Your task to perform on an android device: Empty the shopping cart on ebay.com. Image 0: 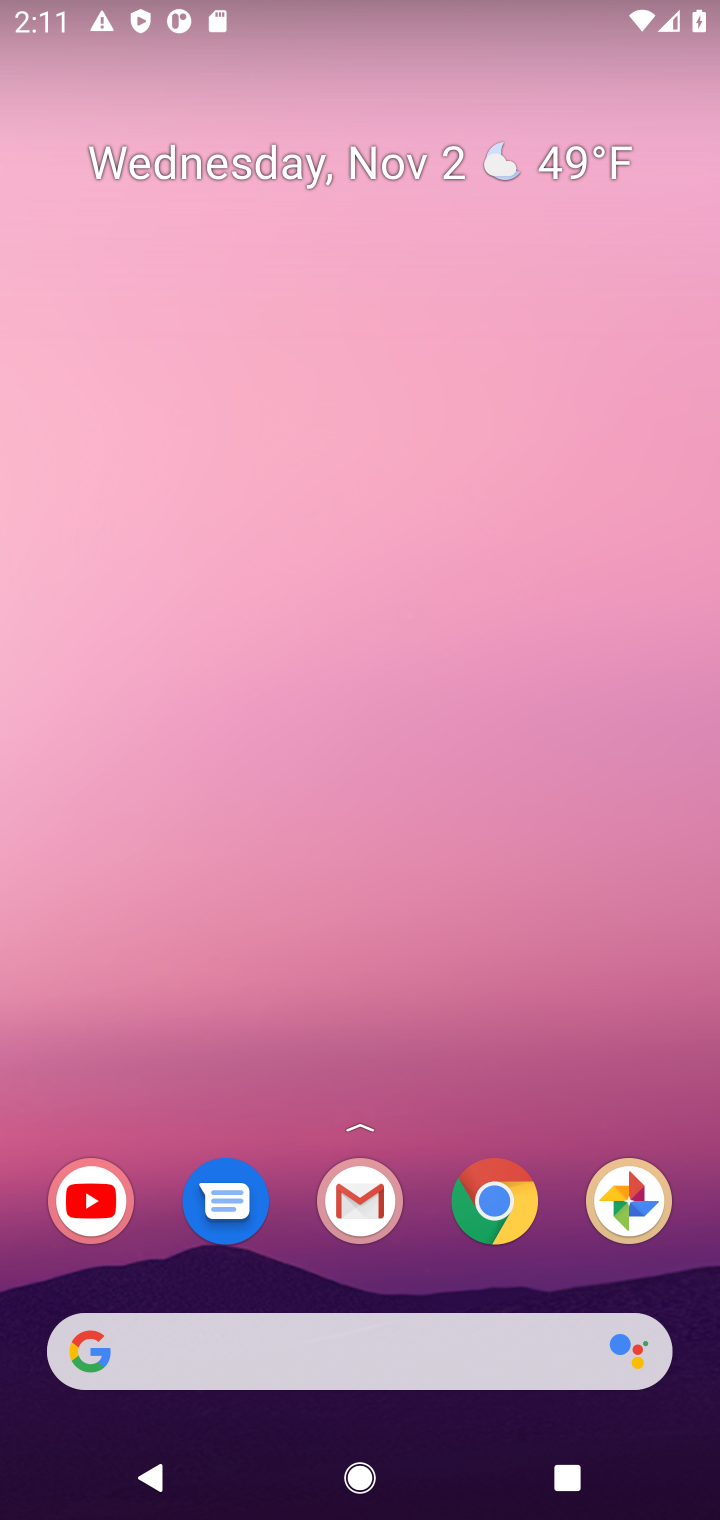
Step 0: click (479, 1205)
Your task to perform on an android device: Empty the shopping cart on ebay.com. Image 1: 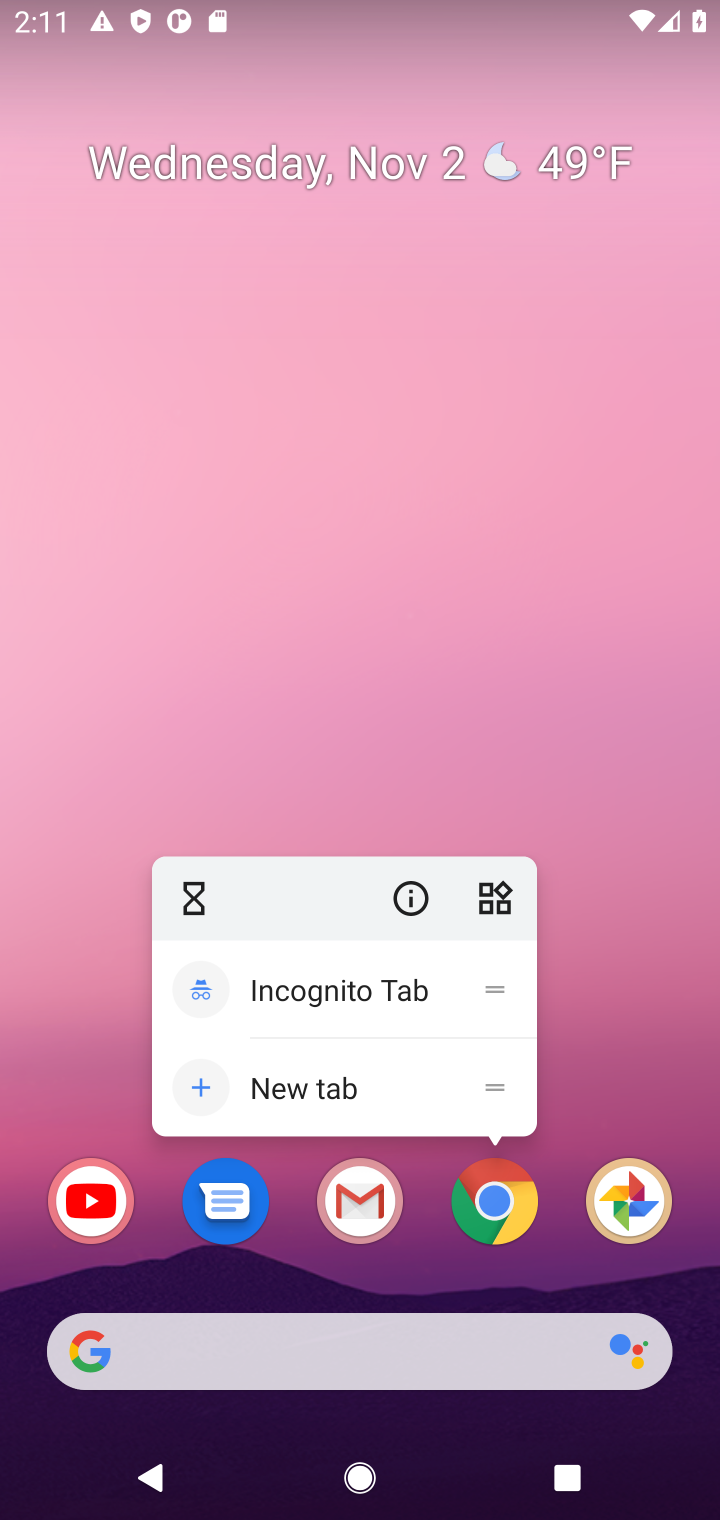
Step 1: click (495, 1188)
Your task to perform on an android device: Empty the shopping cart on ebay.com. Image 2: 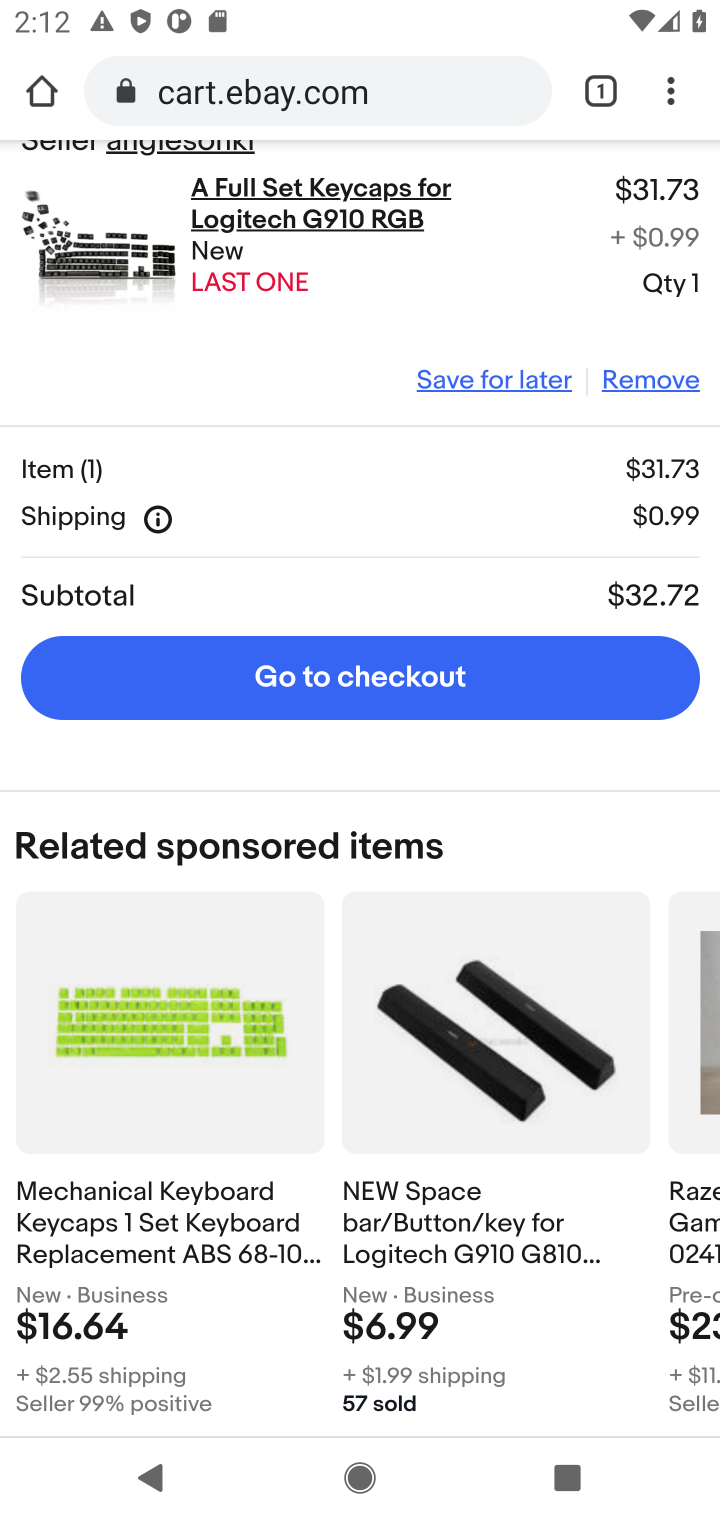
Step 2: drag from (486, 310) to (493, 1173)
Your task to perform on an android device: Empty the shopping cart on ebay.com. Image 3: 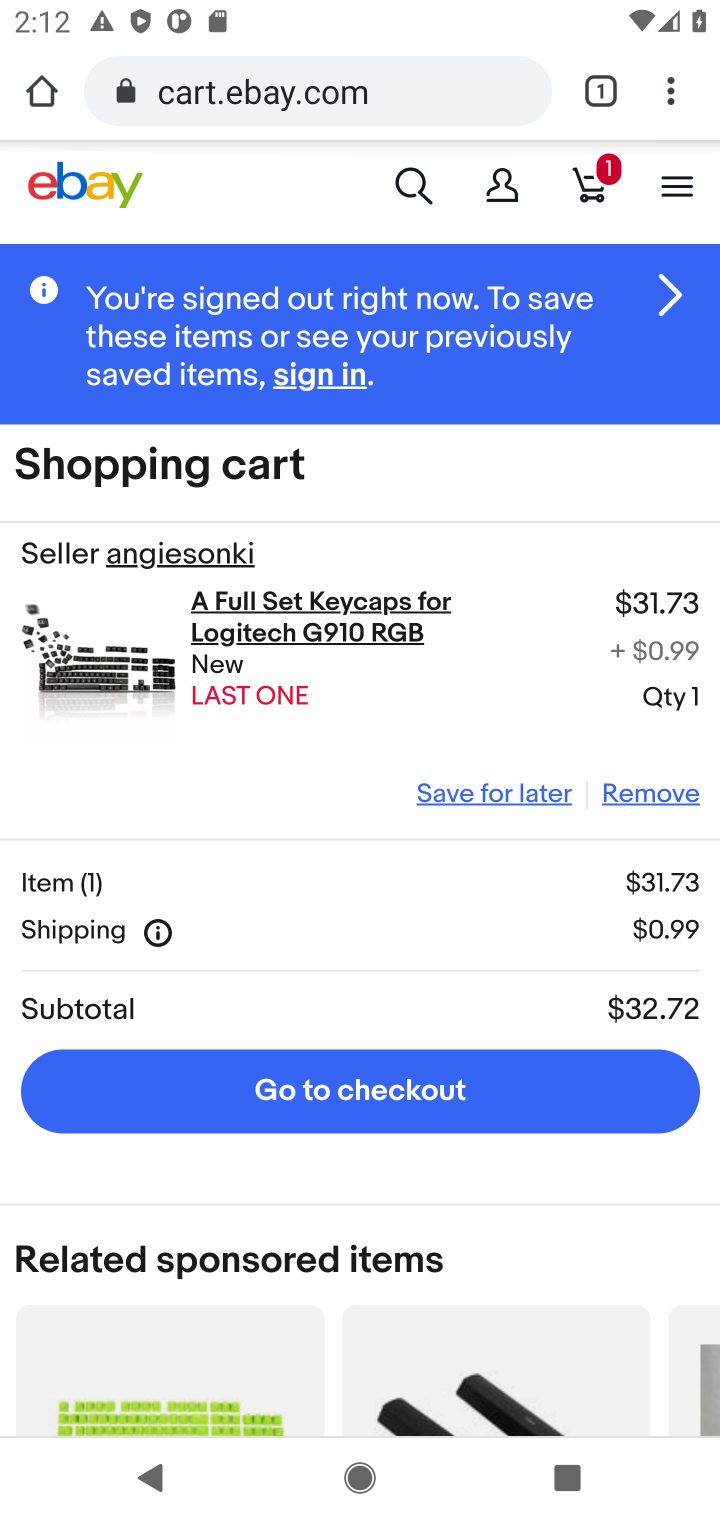
Step 3: click (589, 186)
Your task to perform on an android device: Empty the shopping cart on ebay.com. Image 4: 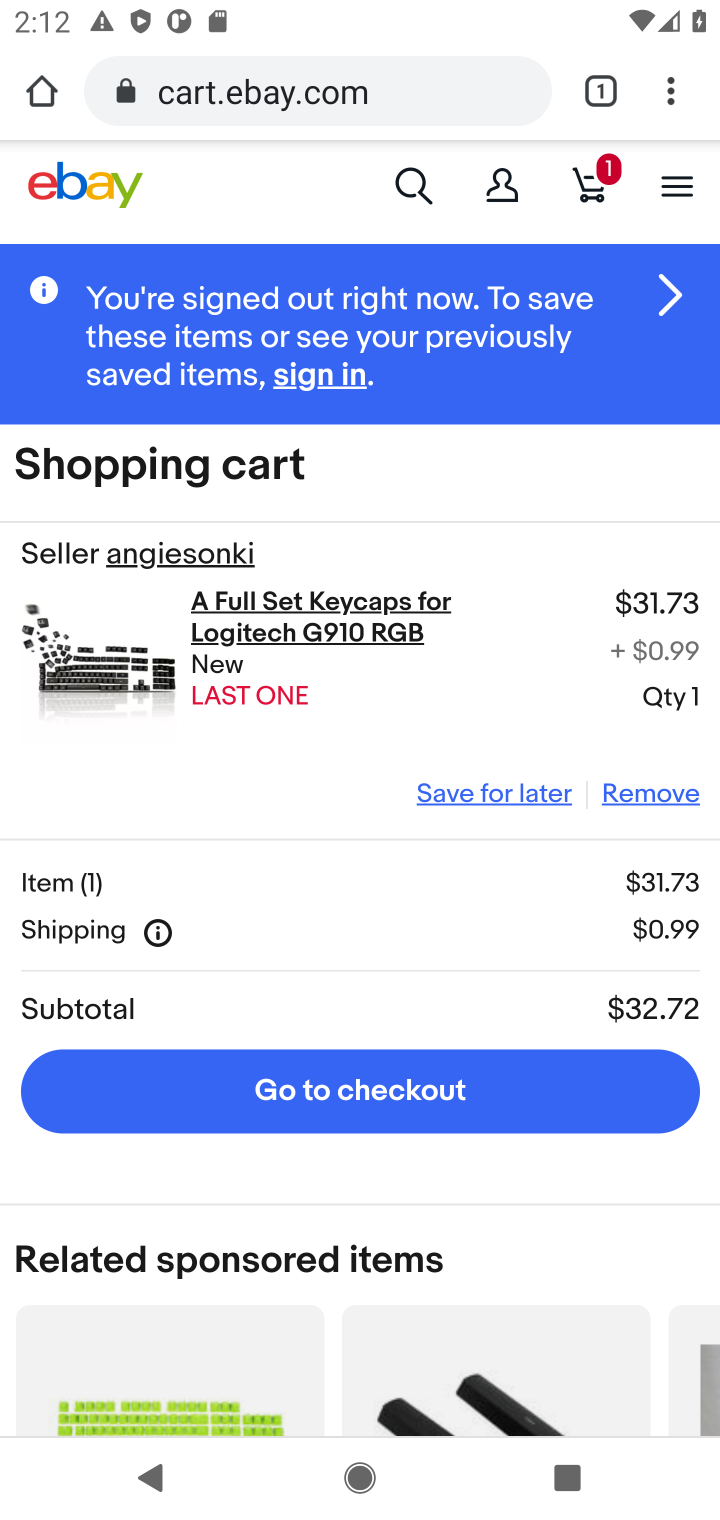
Step 4: click (654, 789)
Your task to perform on an android device: Empty the shopping cart on ebay.com. Image 5: 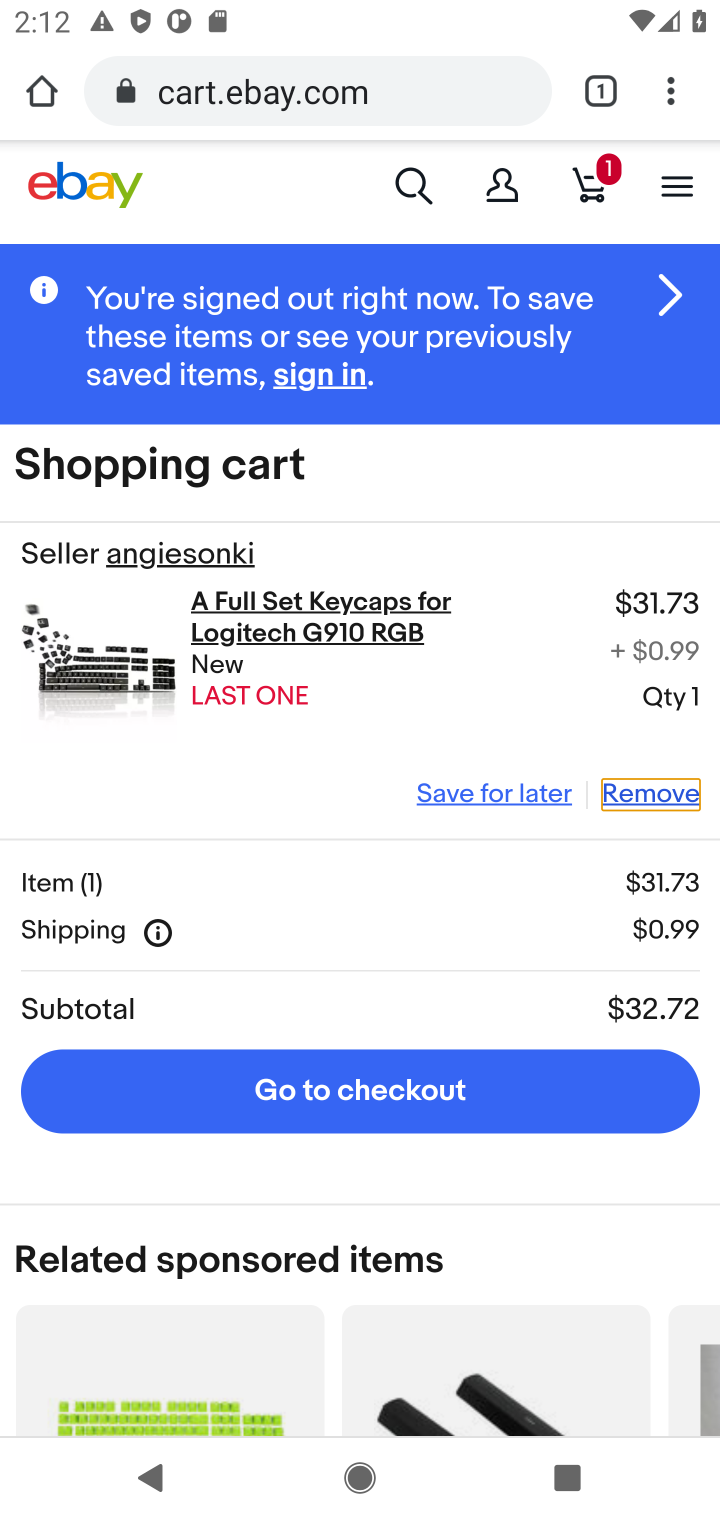
Step 5: click (642, 789)
Your task to perform on an android device: Empty the shopping cart on ebay.com. Image 6: 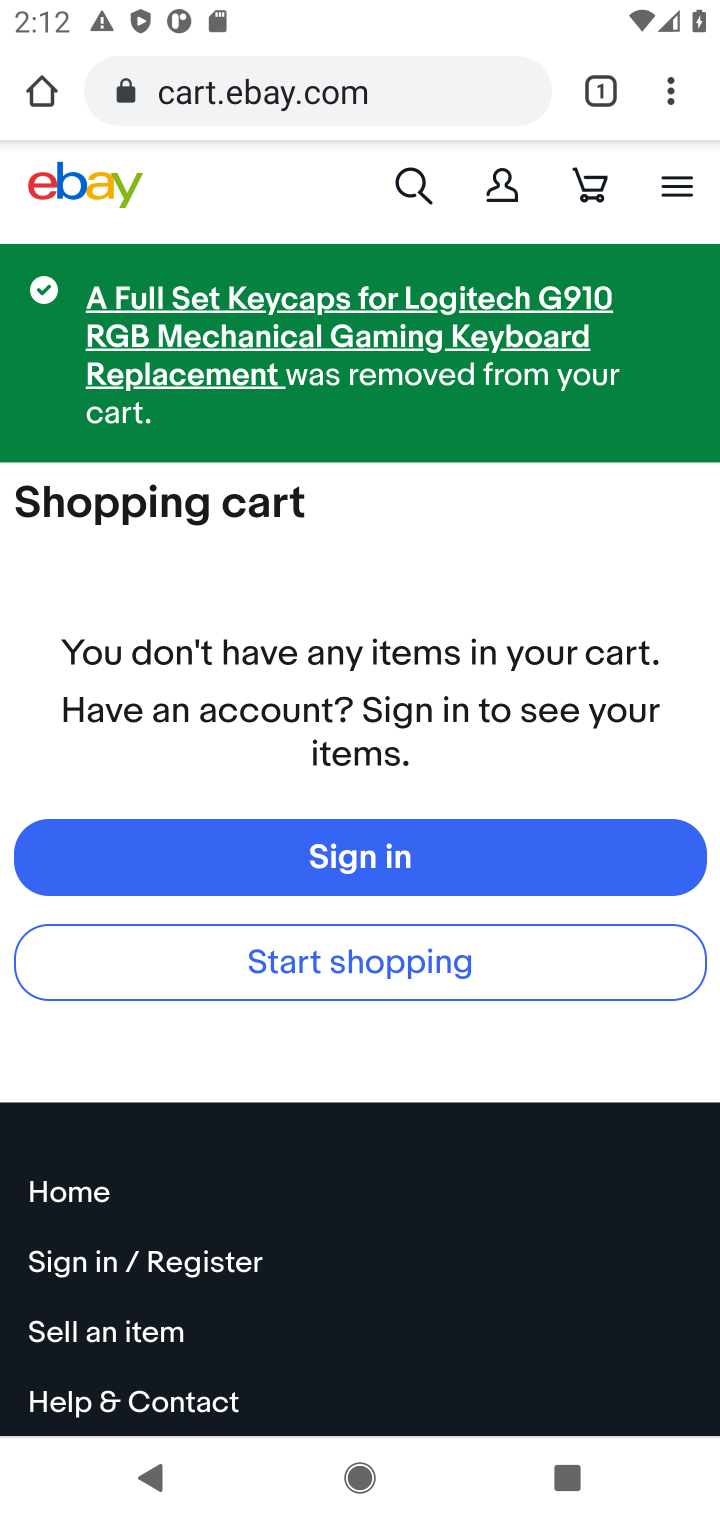
Step 6: task complete